Your task to perform on an android device: What is the news today? Image 0: 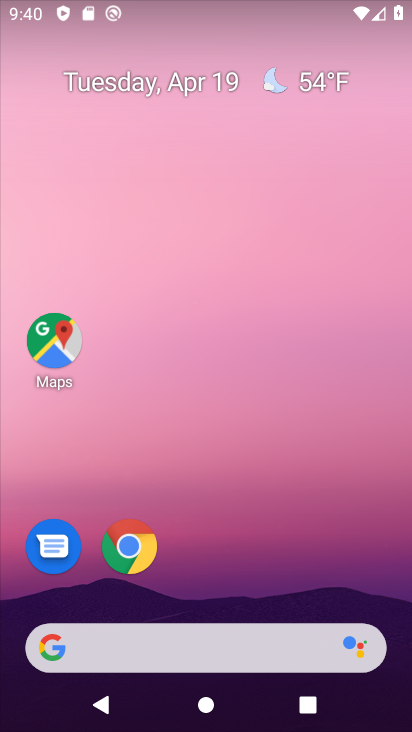
Step 0: click (224, 658)
Your task to perform on an android device: What is the news today? Image 1: 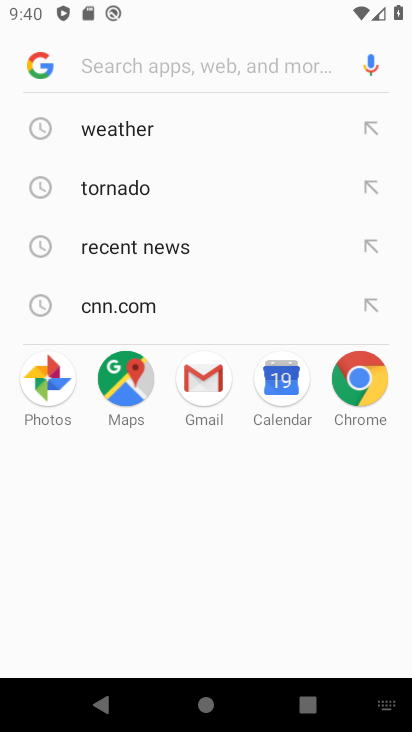
Step 1: type "news today"
Your task to perform on an android device: What is the news today? Image 2: 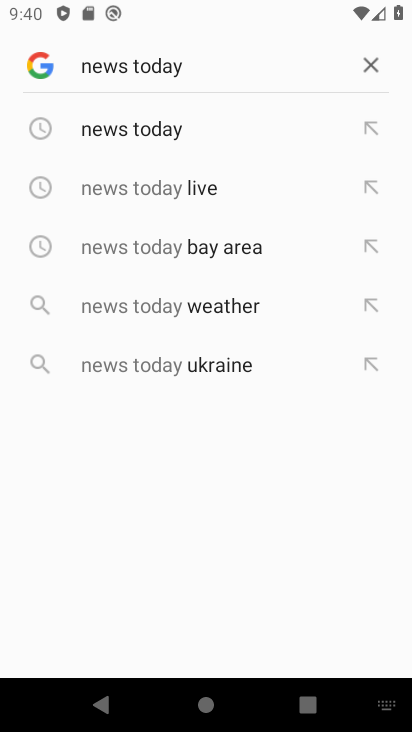
Step 2: click (105, 129)
Your task to perform on an android device: What is the news today? Image 3: 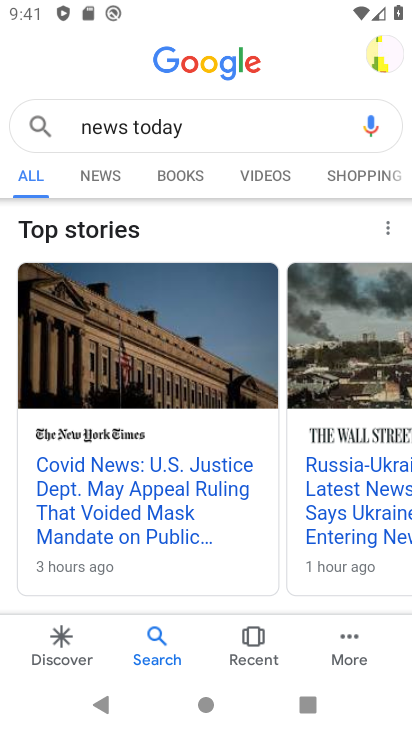
Step 3: task complete